Your task to perform on an android device: Go to notification settings Image 0: 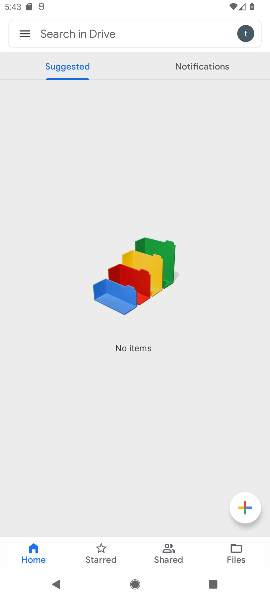
Step 0: press home button
Your task to perform on an android device: Go to notification settings Image 1: 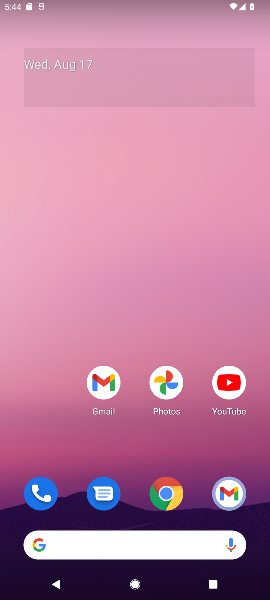
Step 1: drag from (128, 516) to (116, 118)
Your task to perform on an android device: Go to notification settings Image 2: 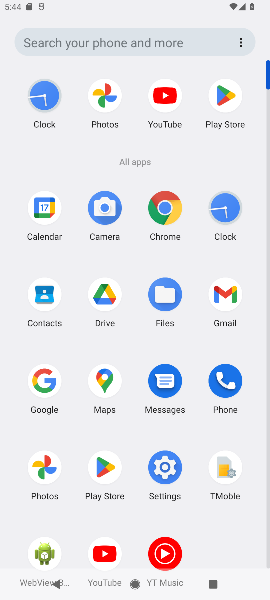
Step 2: click (167, 462)
Your task to perform on an android device: Go to notification settings Image 3: 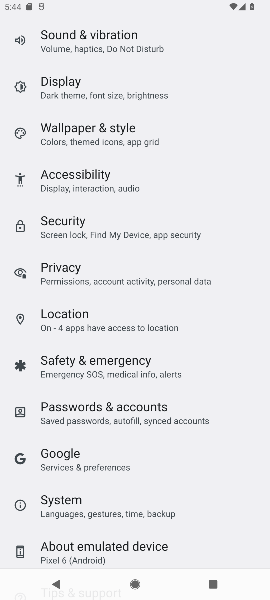
Step 3: drag from (195, 94) to (224, 461)
Your task to perform on an android device: Go to notification settings Image 4: 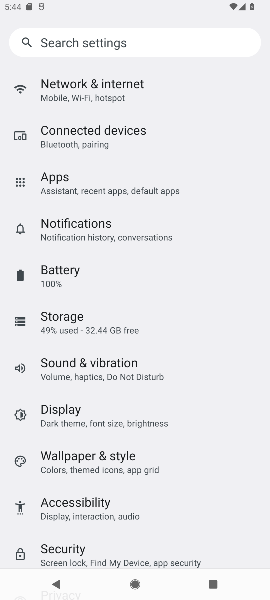
Step 4: click (70, 233)
Your task to perform on an android device: Go to notification settings Image 5: 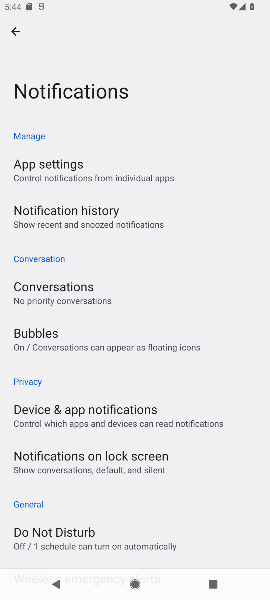
Step 5: task complete